Your task to perform on an android device: Do I have any events this weekend? Image 0: 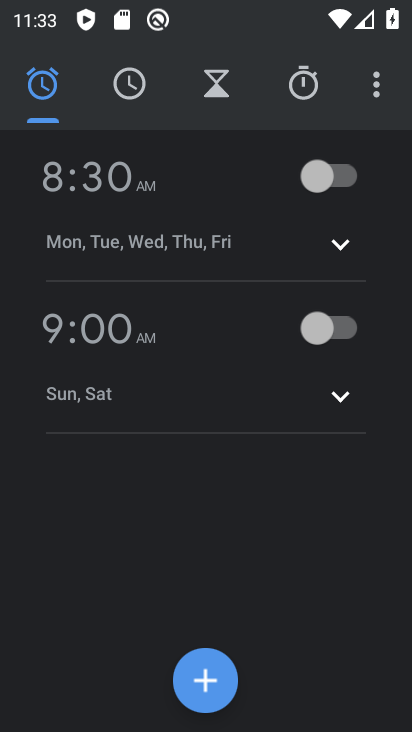
Step 0: press home button
Your task to perform on an android device: Do I have any events this weekend? Image 1: 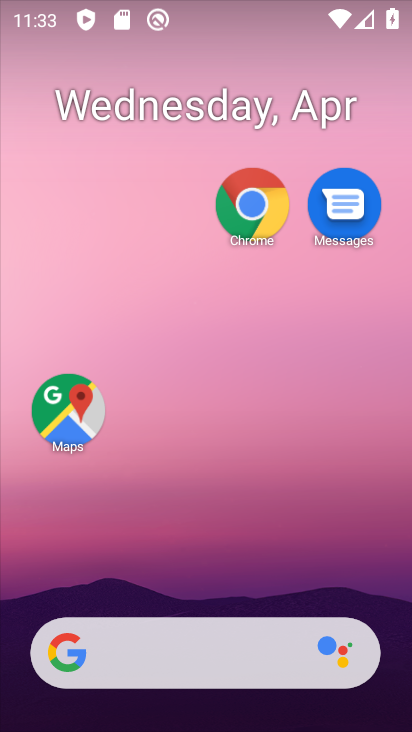
Step 1: drag from (145, 275) to (248, 104)
Your task to perform on an android device: Do I have any events this weekend? Image 2: 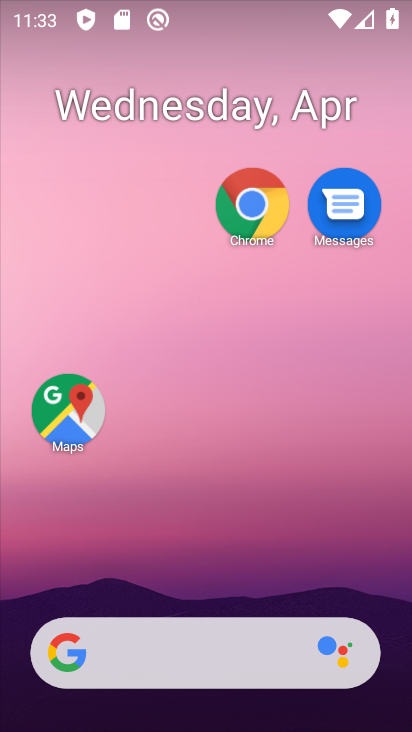
Step 2: drag from (244, 567) to (242, 64)
Your task to perform on an android device: Do I have any events this weekend? Image 3: 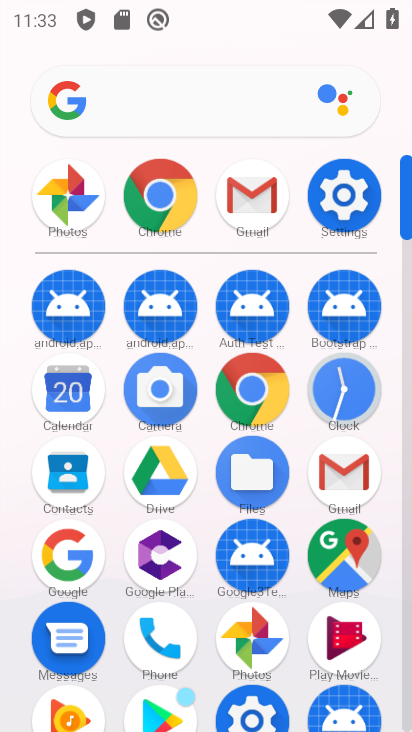
Step 3: click (69, 383)
Your task to perform on an android device: Do I have any events this weekend? Image 4: 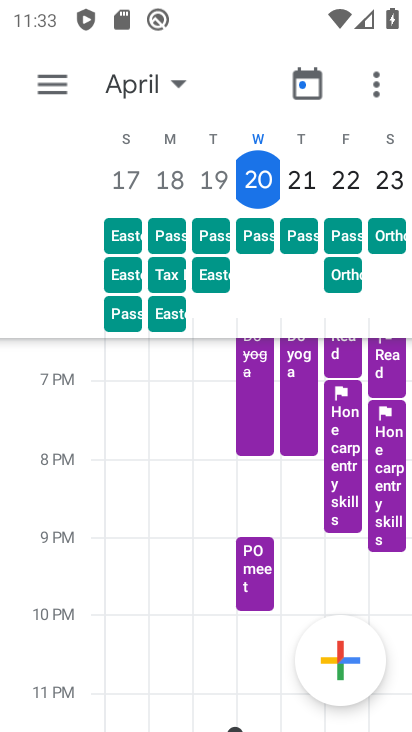
Step 4: task complete